Your task to perform on an android device: Open Wikipedia Image 0: 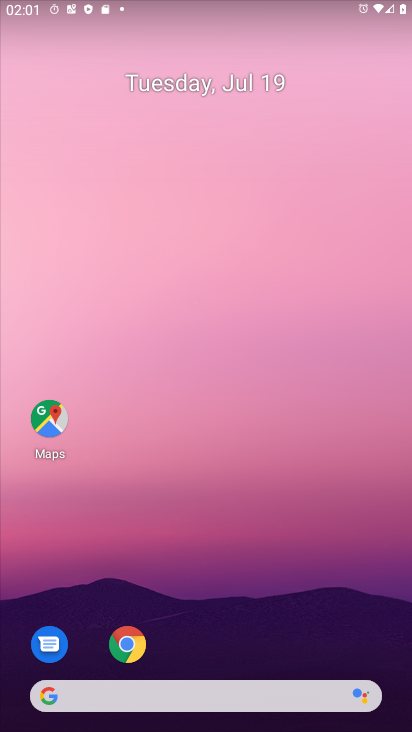
Step 0: click (126, 642)
Your task to perform on an android device: Open Wikipedia Image 1: 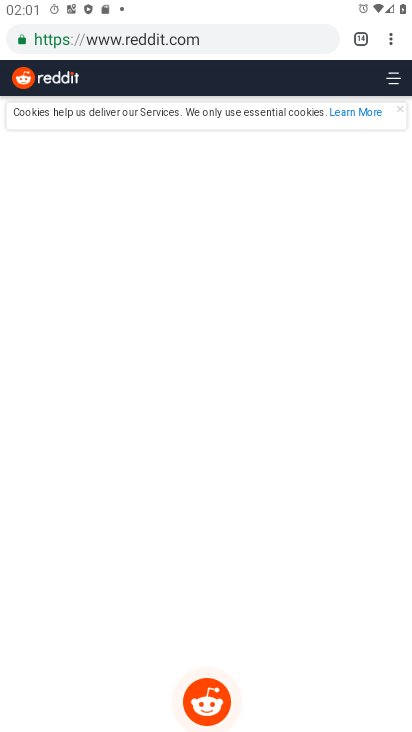
Step 1: click (391, 42)
Your task to perform on an android device: Open Wikipedia Image 2: 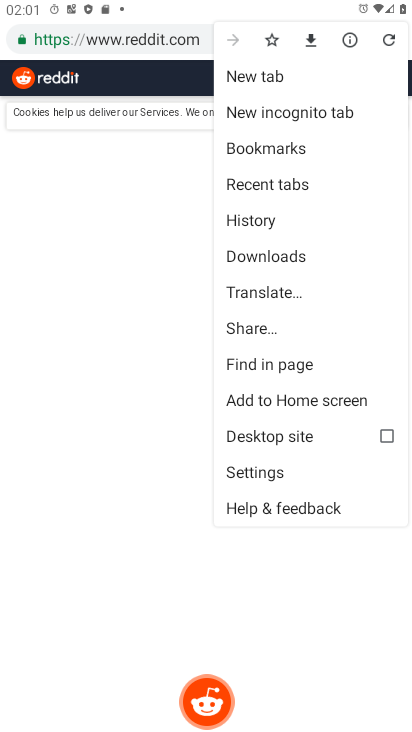
Step 2: click (255, 70)
Your task to perform on an android device: Open Wikipedia Image 3: 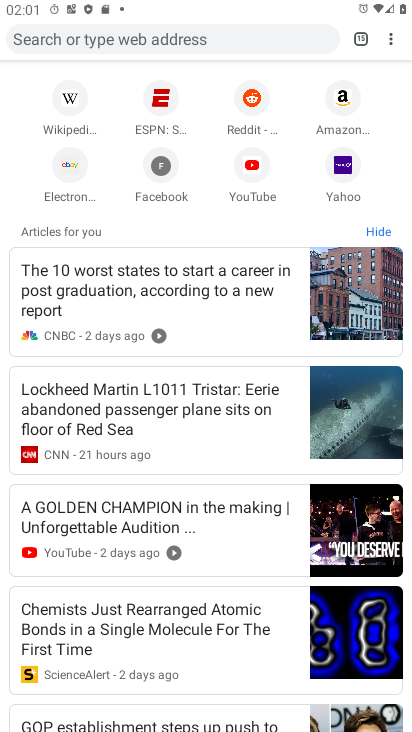
Step 3: click (62, 97)
Your task to perform on an android device: Open Wikipedia Image 4: 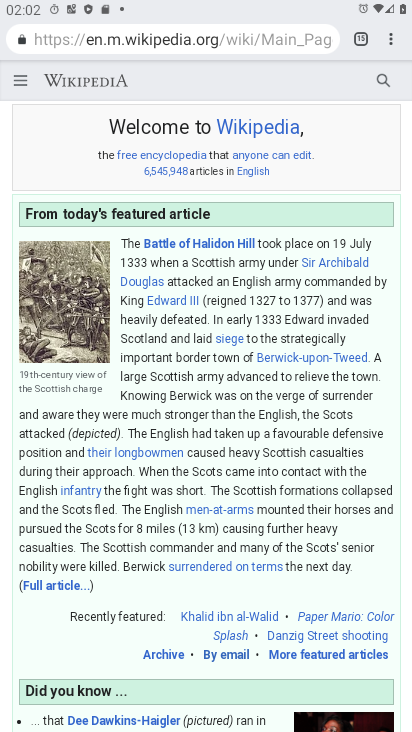
Step 4: task complete